Your task to perform on an android device: change timer sound Image 0: 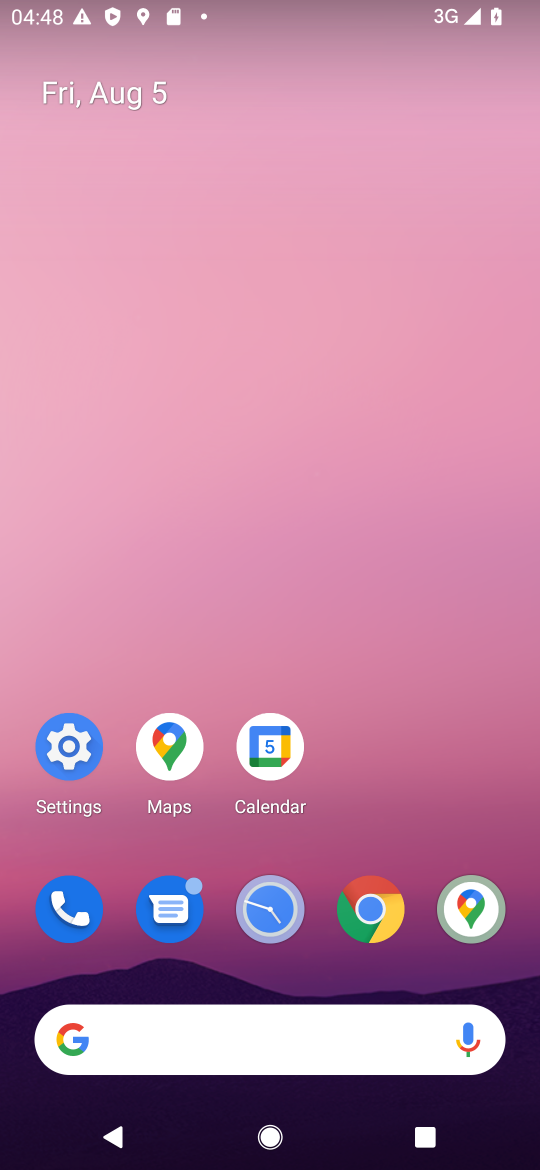
Step 0: click (277, 897)
Your task to perform on an android device: change timer sound Image 1: 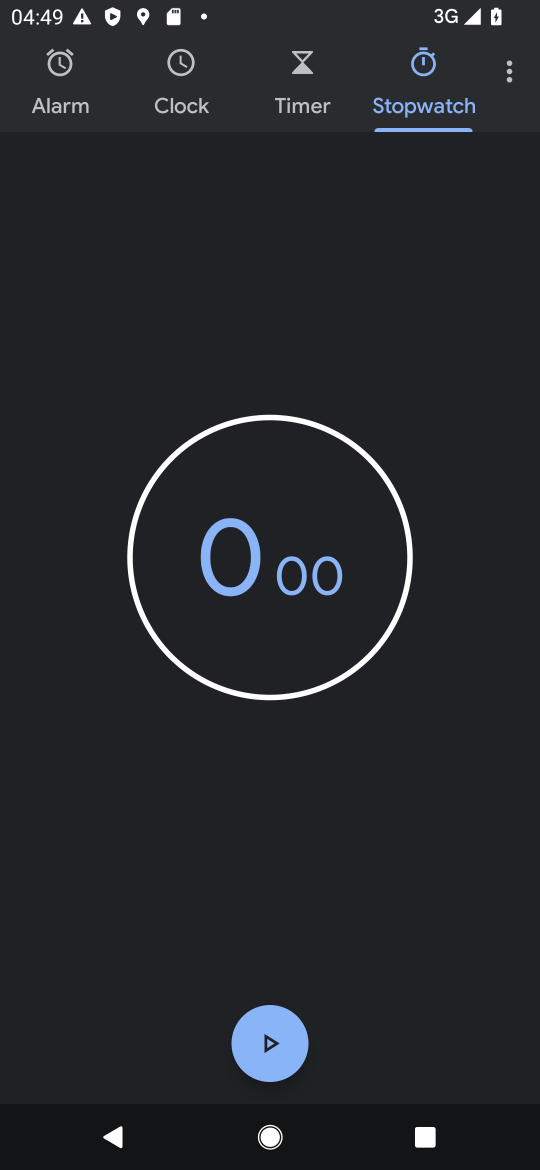
Step 1: click (513, 72)
Your task to perform on an android device: change timer sound Image 2: 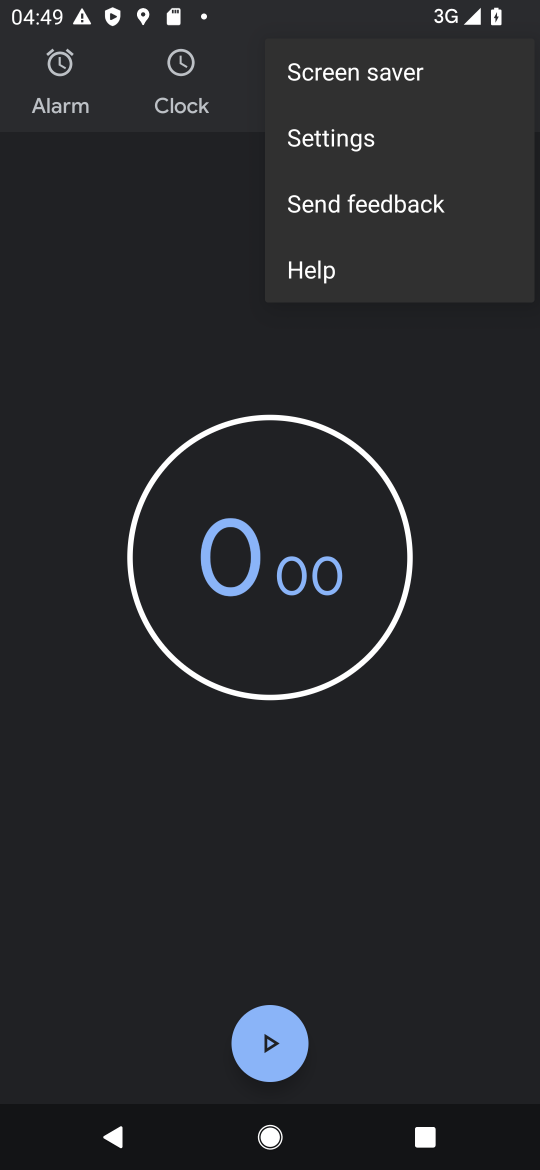
Step 2: click (354, 137)
Your task to perform on an android device: change timer sound Image 3: 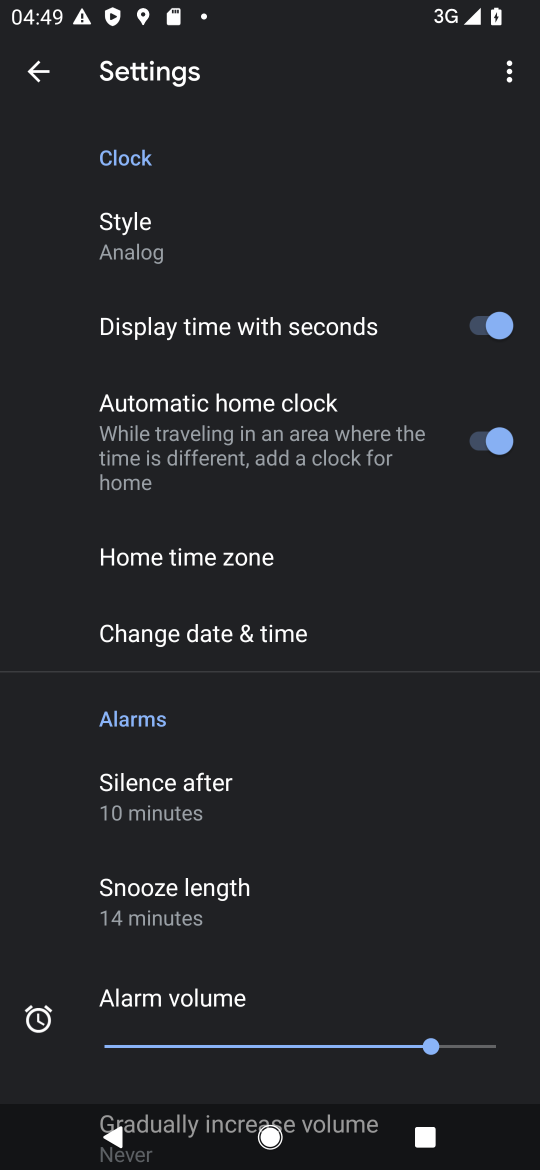
Step 3: drag from (344, 892) to (330, 401)
Your task to perform on an android device: change timer sound Image 4: 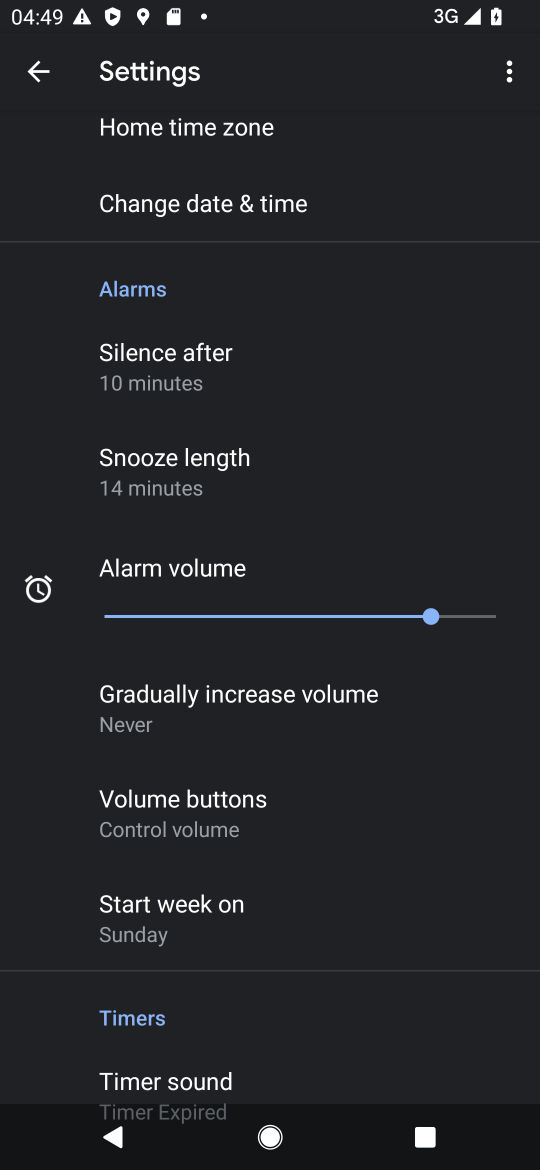
Step 4: click (190, 1074)
Your task to perform on an android device: change timer sound Image 5: 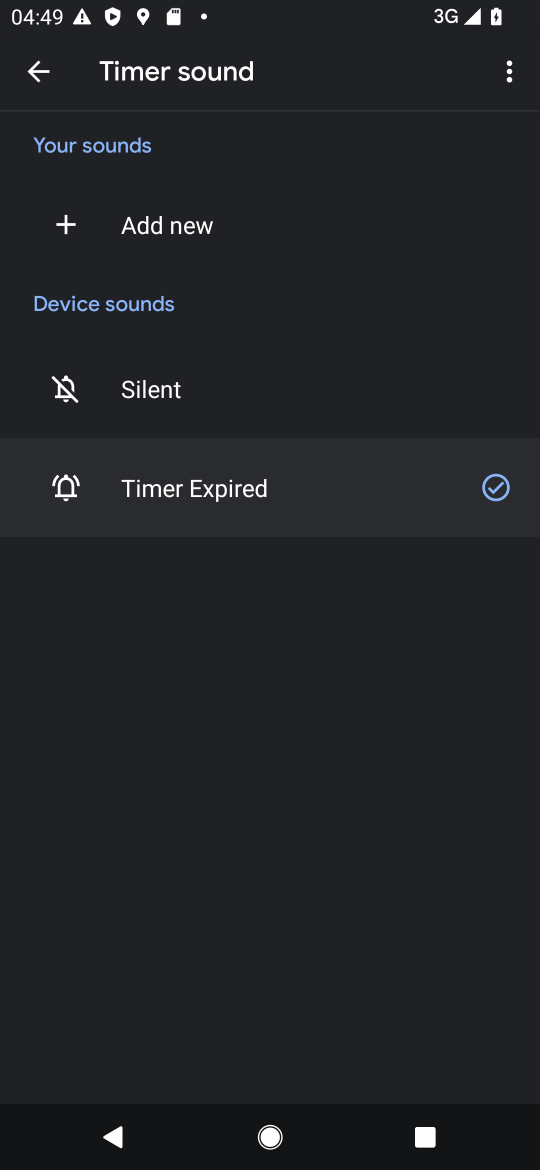
Step 5: task complete